Your task to perform on an android device: toggle pop-ups in chrome Image 0: 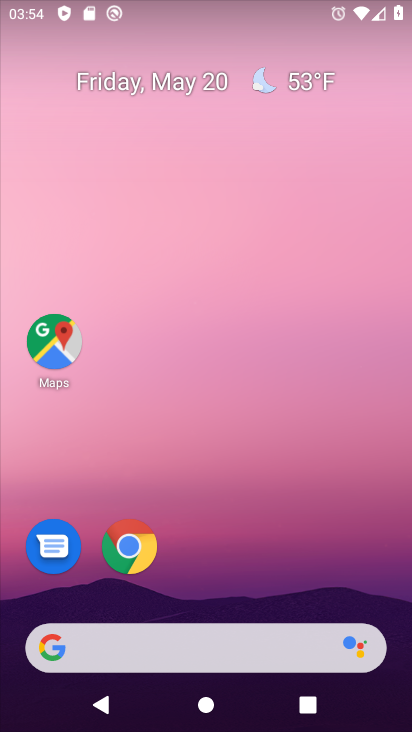
Step 0: drag from (262, 612) to (331, 132)
Your task to perform on an android device: toggle pop-ups in chrome Image 1: 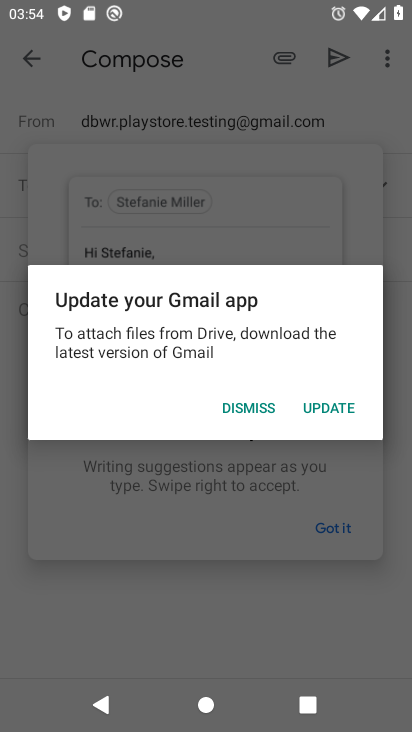
Step 1: click (223, 151)
Your task to perform on an android device: toggle pop-ups in chrome Image 2: 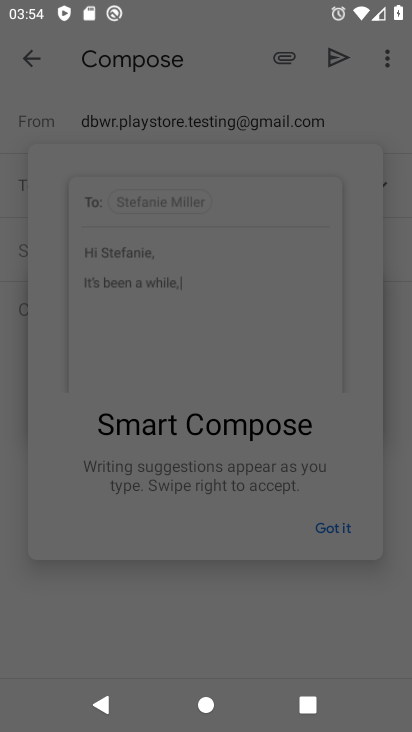
Step 2: press home button
Your task to perform on an android device: toggle pop-ups in chrome Image 3: 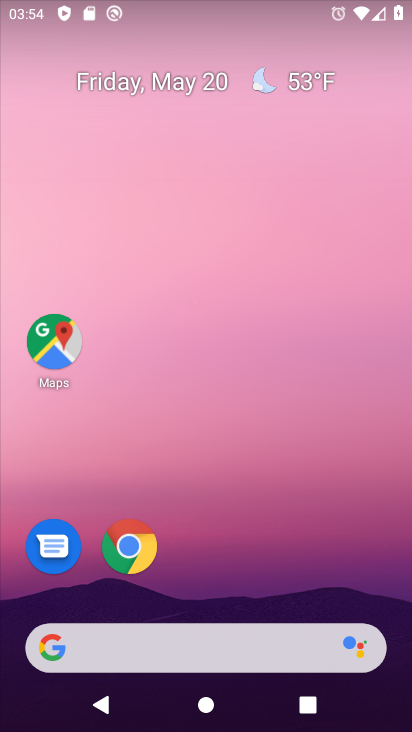
Step 3: click (130, 540)
Your task to perform on an android device: toggle pop-ups in chrome Image 4: 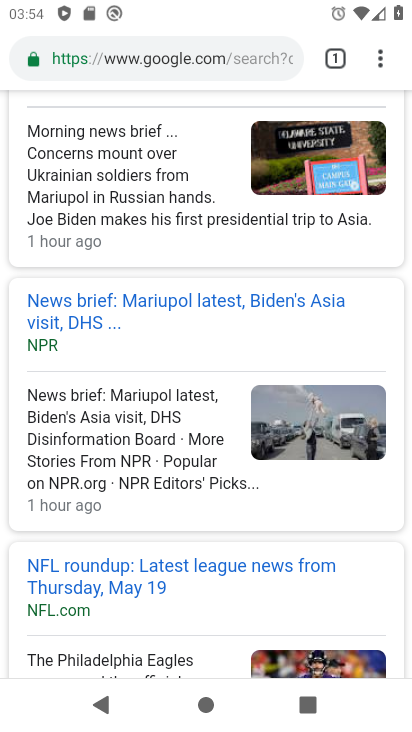
Step 4: drag from (382, 63) to (199, 571)
Your task to perform on an android device: toggle pop-ups in chrome Image 5: 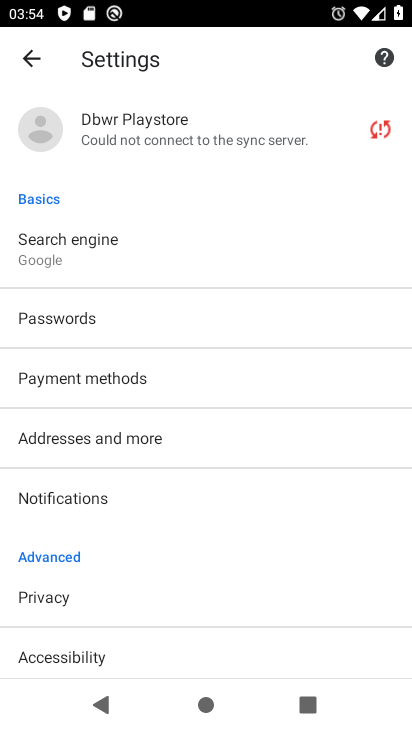
Step 5: drag from (210, 543) to (273, 272)
Your task to perform on an android device: toggle pop-ups in chrome Image 6: 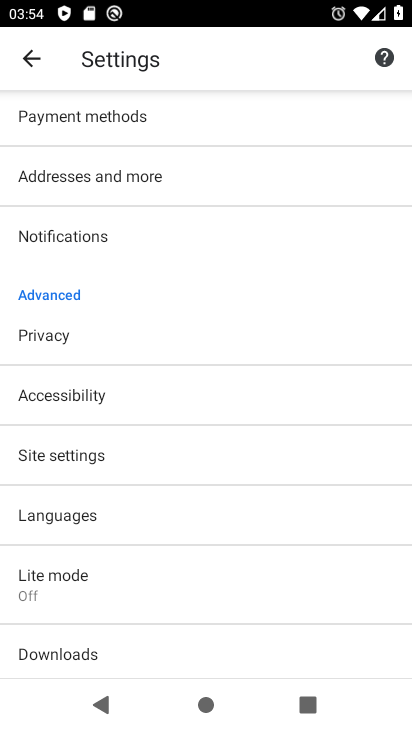
Step 6: click (91, 459)
Your task to perform on an android device: toggle pop-ups in chrome Image 7: 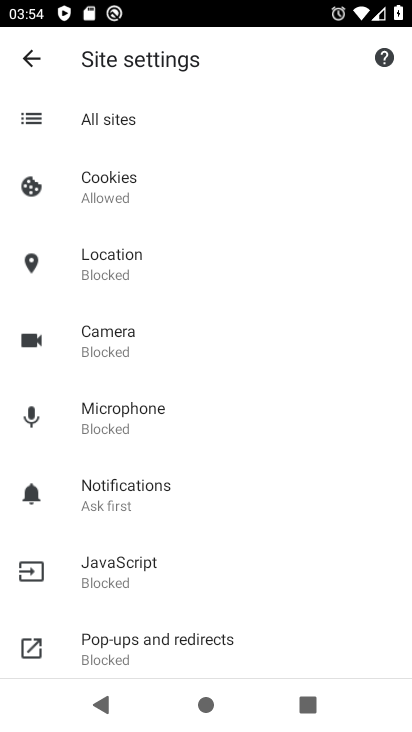
Step 7: drag from (144, 611) to (245, 381)
Your task to perform on an android device: toggle pop-ups in chrome Image 8: 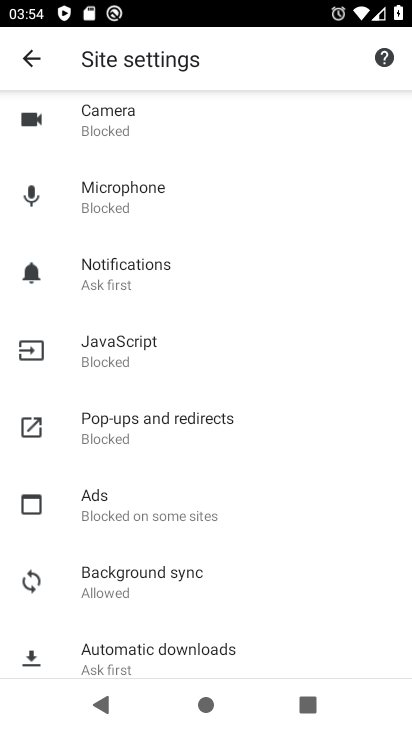
Step 8: click (167, 426)
Your task to perform on an android device: toggle pop-ups in chrome Image 9: 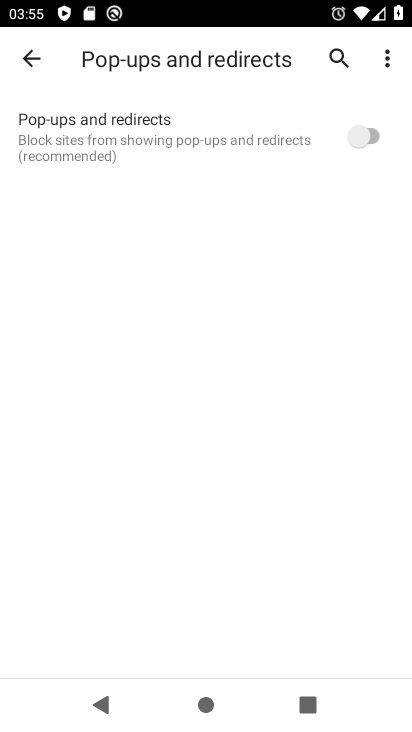
Step 9: click (367, 130)
Your task to perform on an android device: toggle pop-ups in chrome Image 10: 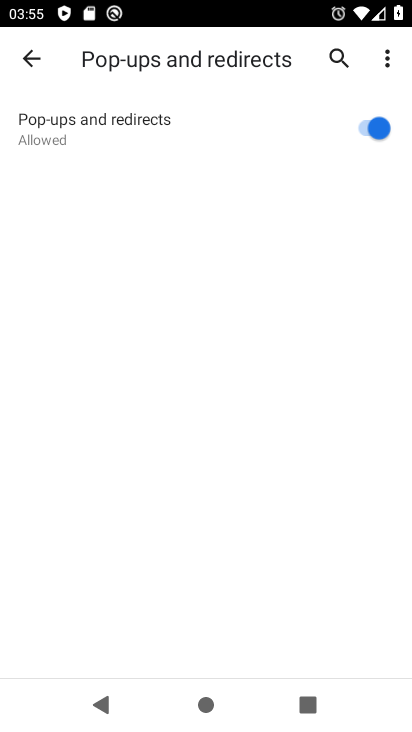
Step 10: task complete